Your task to perform on an android device: Open Chrome and go to the settings page Image 0: 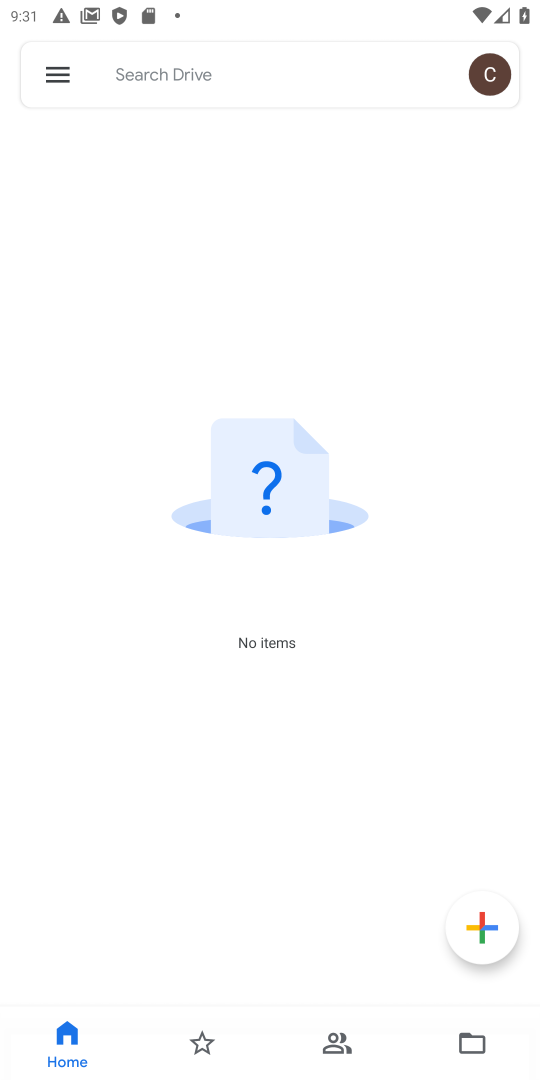
Step 0: press home button
Your task to perform on an android device: Open Chrome and go to the settings page Image 1: 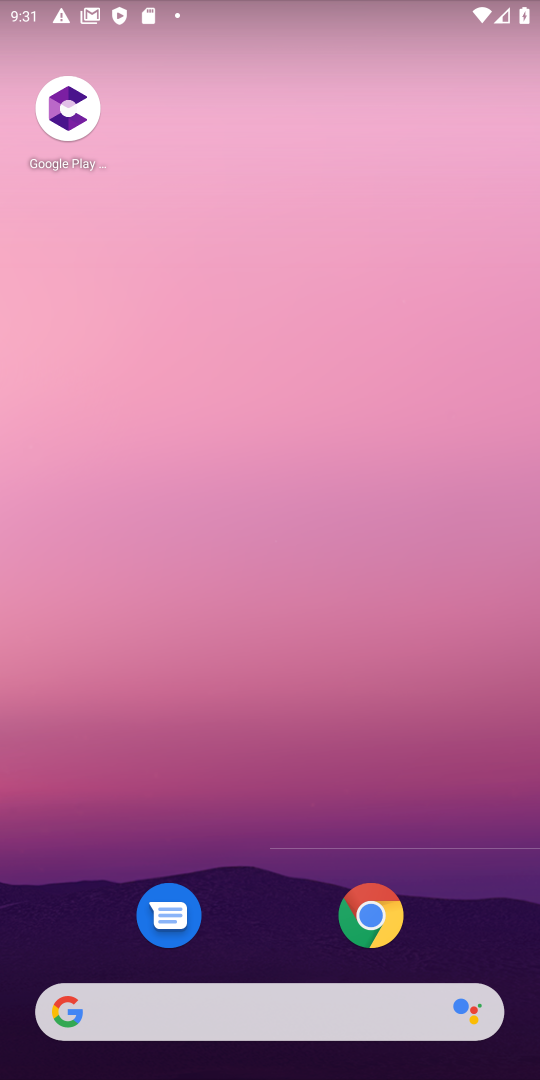
Step 1: click (379, 912)
Your task to perform on an android device: Open Chrome and go to the settings page Image 2: 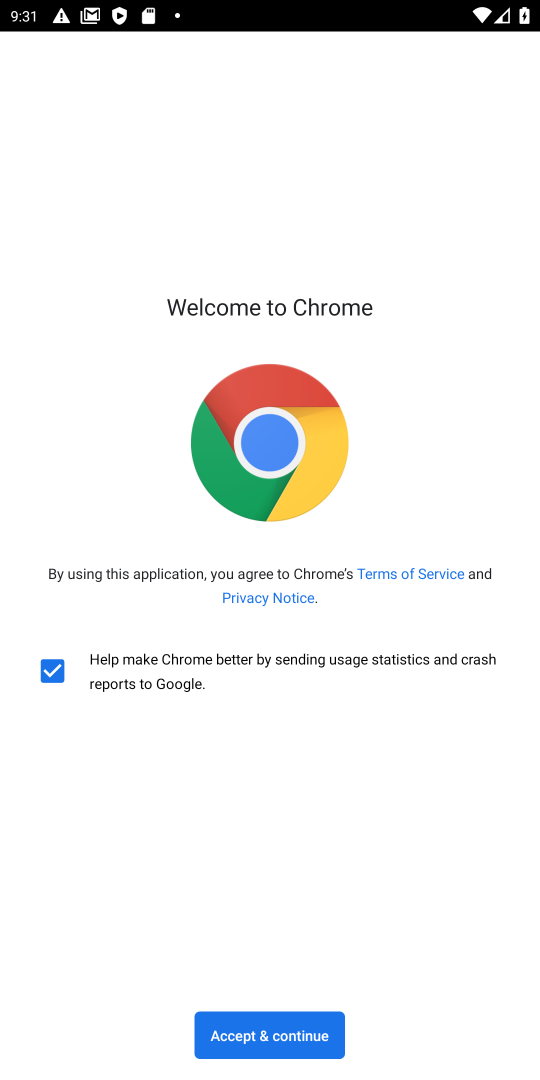
Step 2: click (296, 1040)
Your task to perform on an android device: Open Chrome and go to the settings page Image 3: 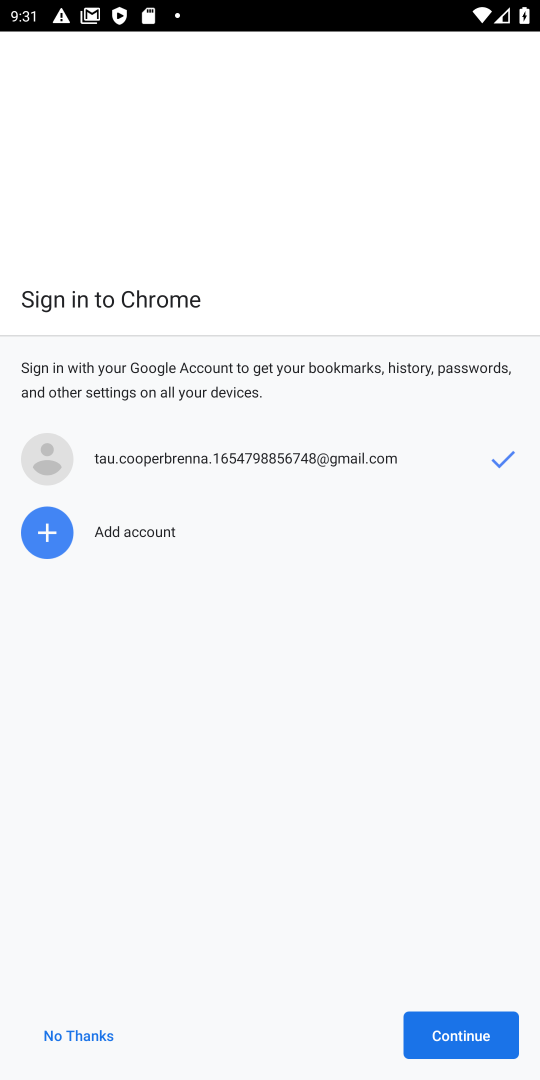
Step 3: click (460, 1046)
Your task to perform on an android device: Open Chrome and go to the settings page Image 4: 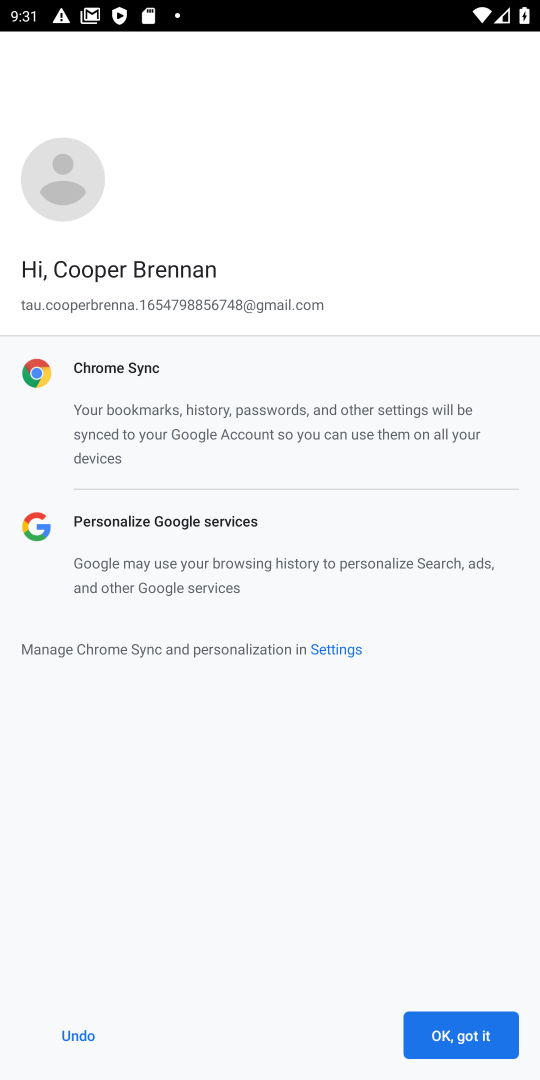
Step 4: click (460, 1046)
Your task to perform on an android device: Open Chrome and go to the settings page Image 5: 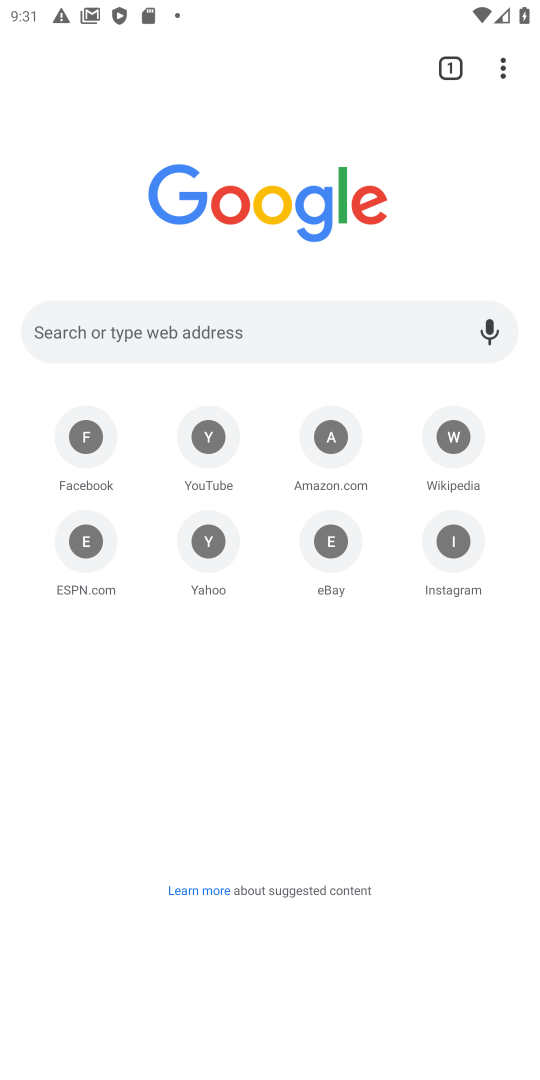
Step 5: task complete